Your task to perform on an android device: turn on translation in the chrome app Image 0: 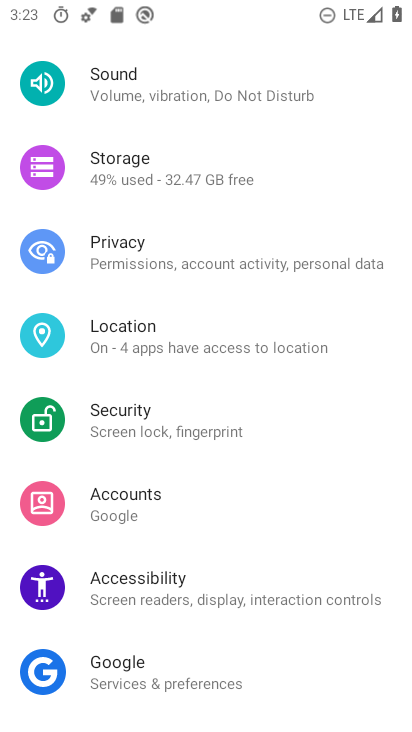
Step 0: press home button
Your task to perform on an android device: turn on translation in the chrome app Image 1: 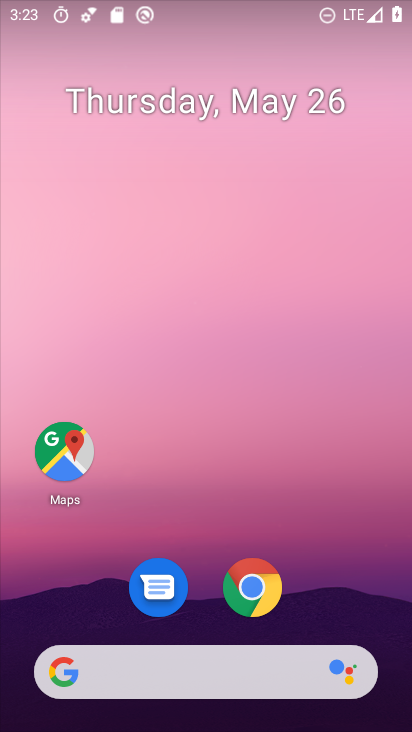
Step 1: click (255, 583)
Your task to perform on an android device: turn on translation in the chrome app Image 2: 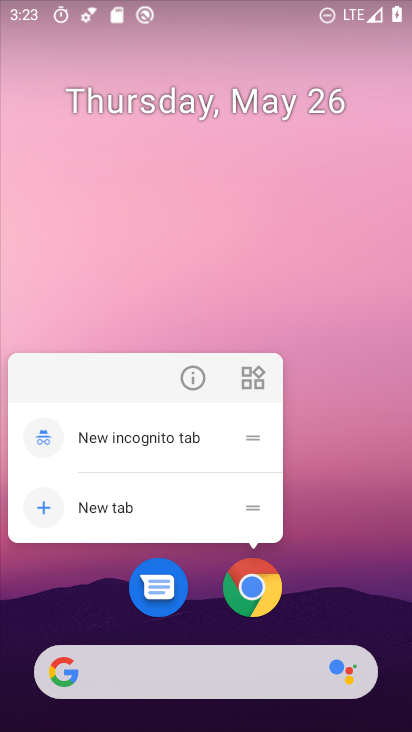
Step 2: click (253, 598)
Your task to perform on an android device: turn on translation in the chrome app Image 3: 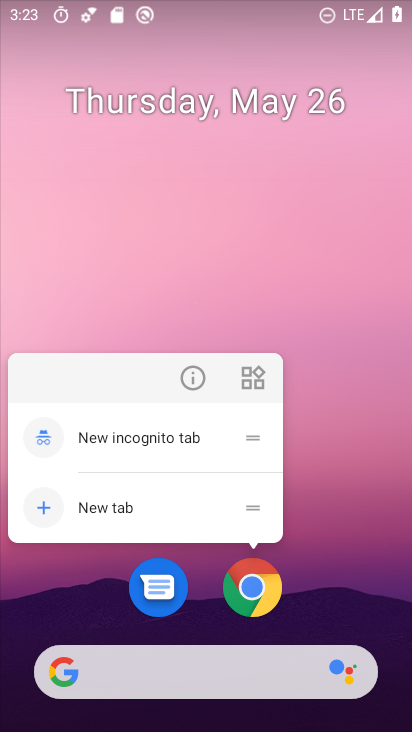
Step 3: click (257, 585)
Your task to perform on an android device: turn on translation in the chrome app Image 4: 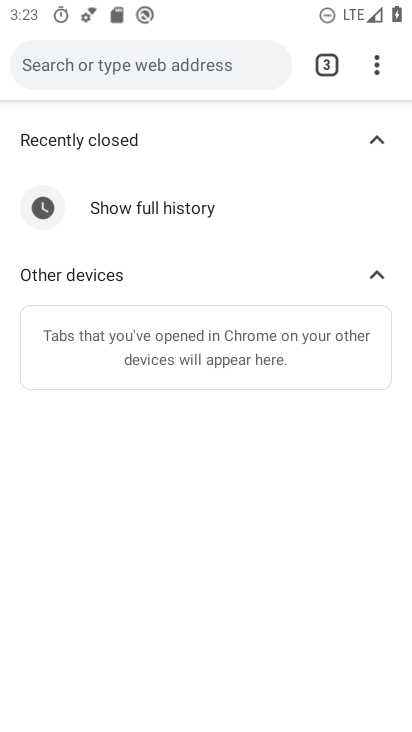
Step 4: drag from (383, 60) to (150, 546)
Your task to perform on an android device: turn on translation in the chrome app Image 5: 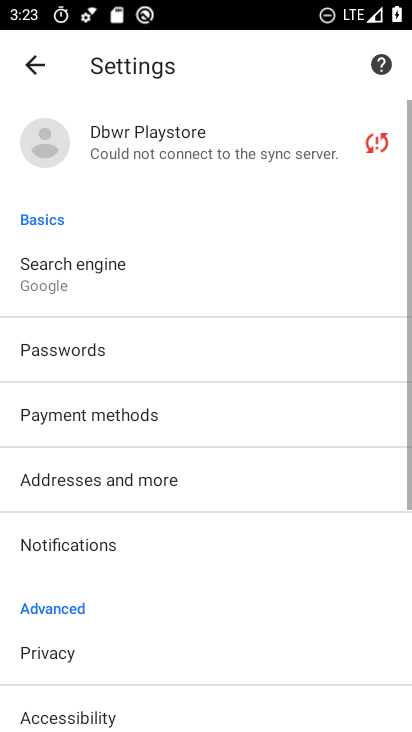
Step 5: drag from (113, 626) to (206, 6)
Your task to perform on an android device: turn on translation in the chrome app Image 6: 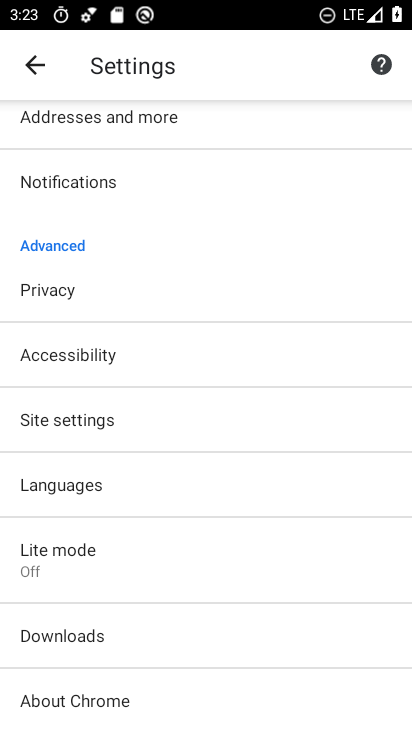
Step 6: click (87, 490)
Your task to perform on an android device: turn on translation in the chrome app Image 7: 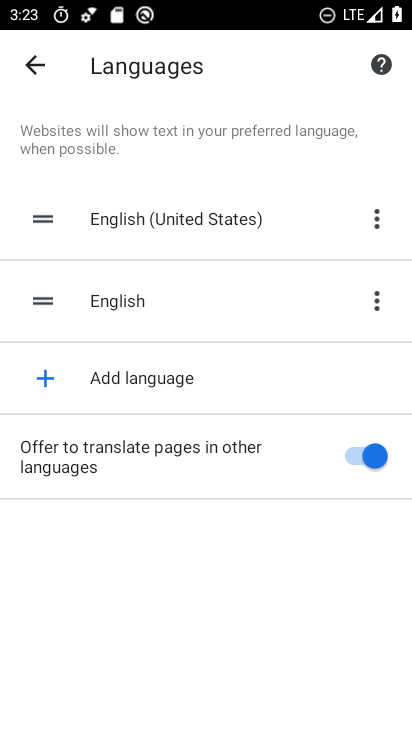
Step 7: task complete